Your task to perform on an android device: toggle location history Image 0: 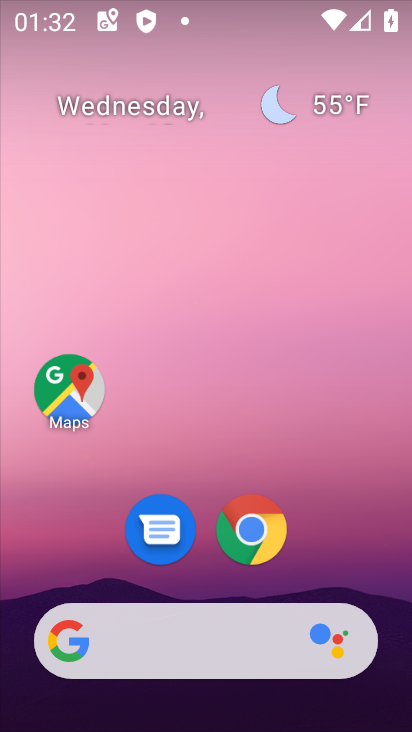
Step 0: drag from (190, 713) to (192, 242)
Your task to perform on an android device: toggle location history Image 1: 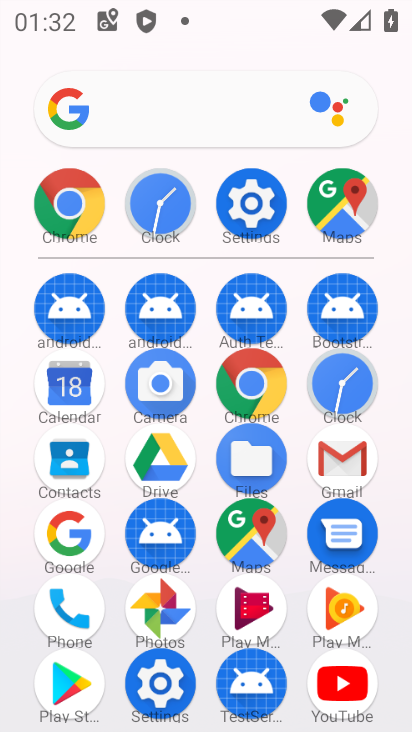
Step 1: click (254, 190)
Your task to perform on an android device: toggle location history Image 2: 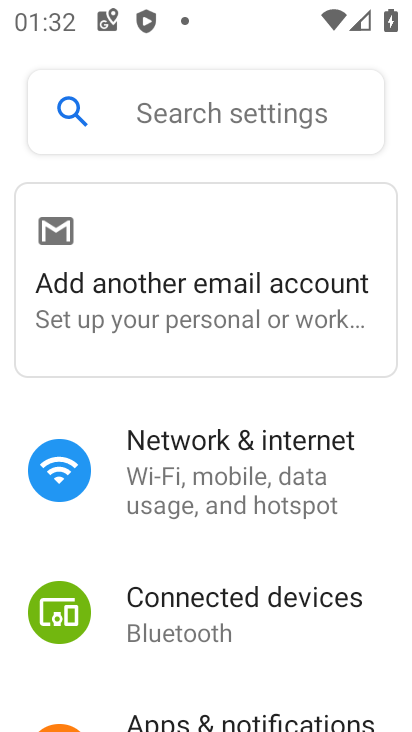
Step 2: drag from (235, 685) to (236, 237)
Your task to perform on an android device: toggle location history Image 3: 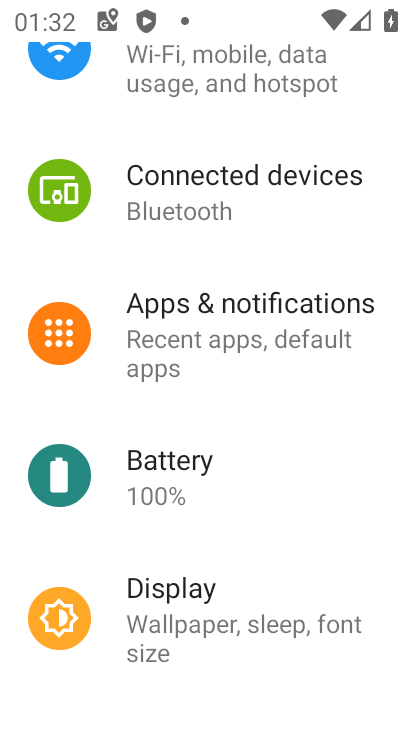
Step 3: drag from (213, 669) to (214, 278)
Your task to perform on an android device: toggle location history Image 4: 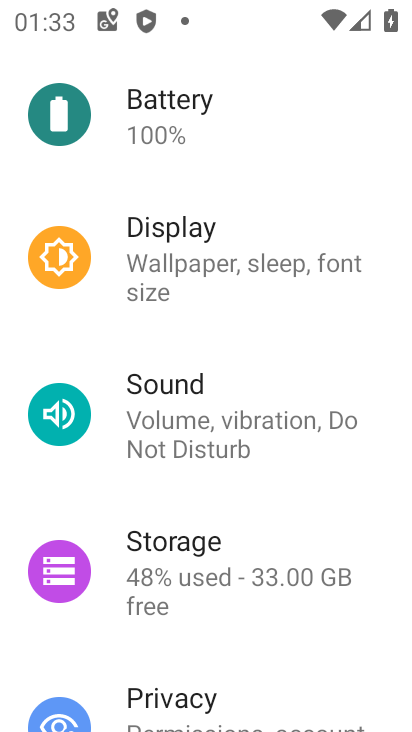
Step 4: drag from (189, 643) to (195, 260)
Your task to perform on an android device: toggle location history Image 5: 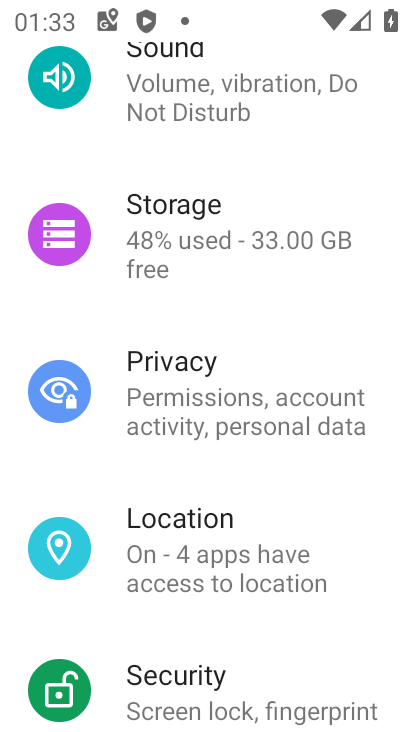
Step 5: click (186, 549)
Your task to perform on an android device: toggle location history Image 6: 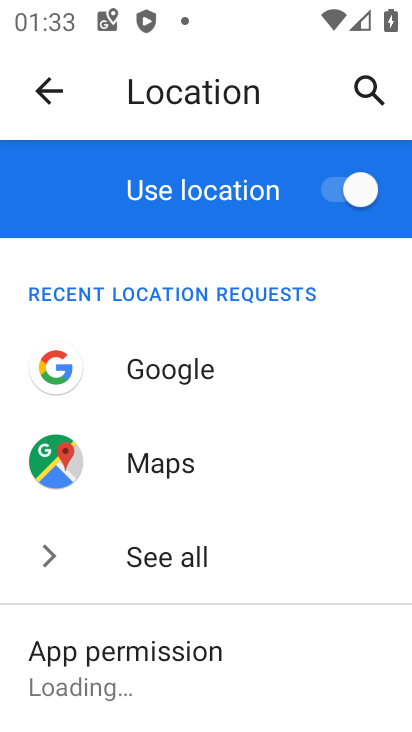
Step 6: drag from (235, 695) to (240, 359)
Your task to perform on an android device: toggle location history Image 7: 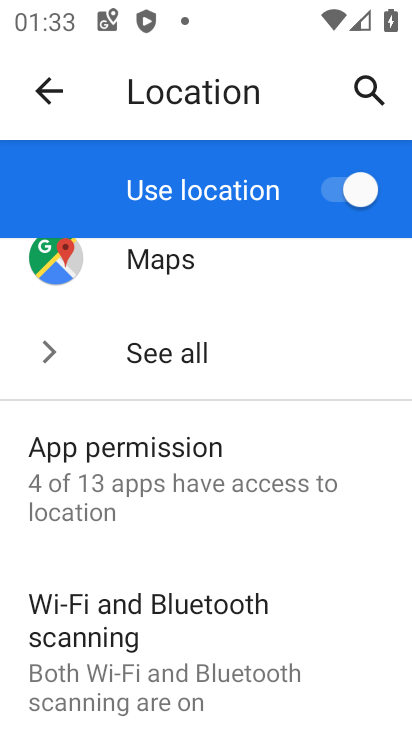
Step 7: drag from (232, 667) to (232, 290)
Your task to perform on an android device: toggle location history Image 8: 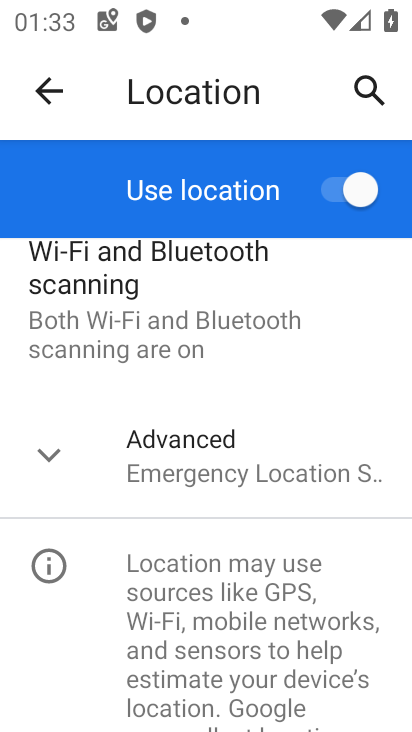
Step 8: click (178, 464)
Your task to perform on an android device: toggle location history Image 9: 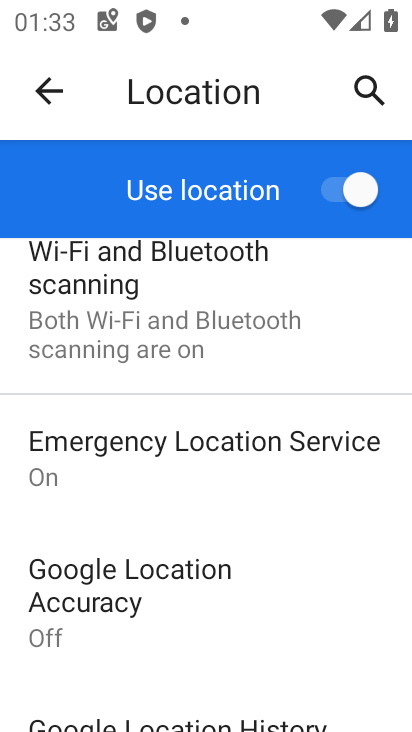
Step 9: drag from (204, 664) to (238, 434)
Your task to perform on an android device: toggle location history Image 10: 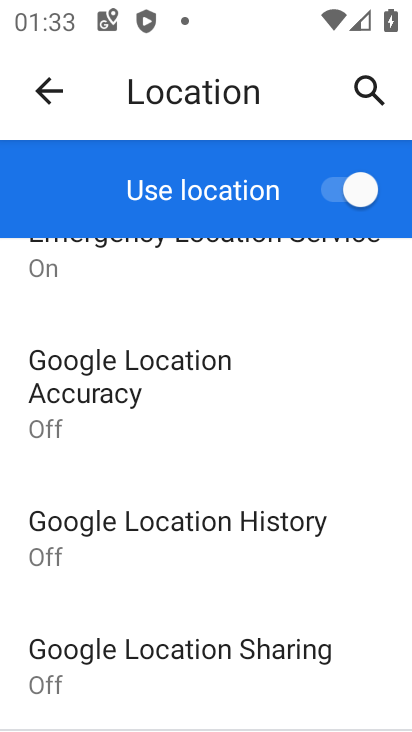
Step 10: click (194, 522)
Your task to perform on an android device: toggle location history Image 11: 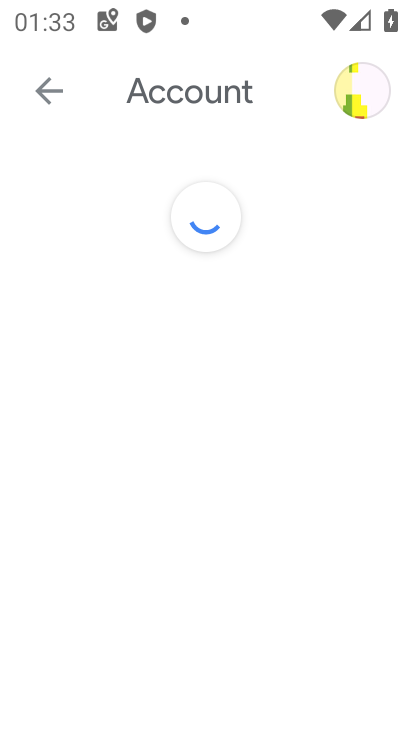
Step 11: drag from (187, 691) to (199, 282)
Your task to perform on an android device: toggle location history Image 12: 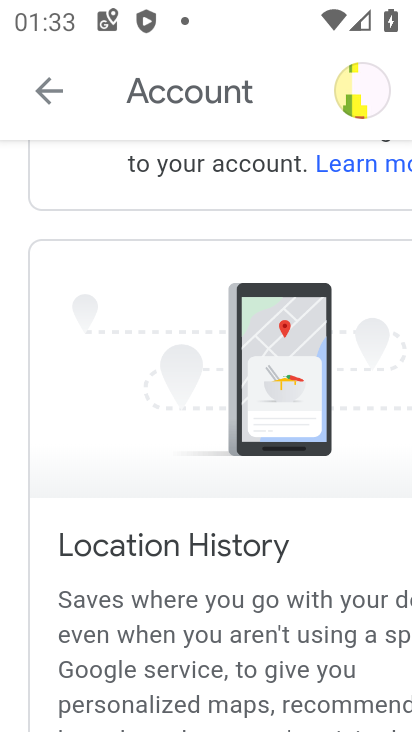
Step 12: drag from (234, 670) to (243, 392)
Your task to perform on an android device: toggle location history Image 13: 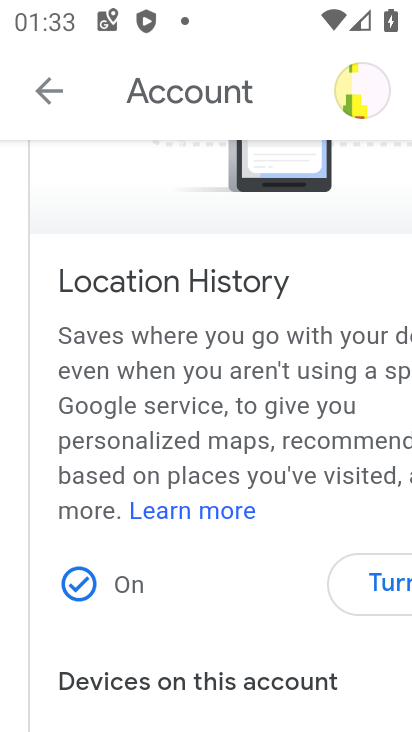
Step 13: click (386, 575)
Your task to perform on an android device: toggle location history Image 14: 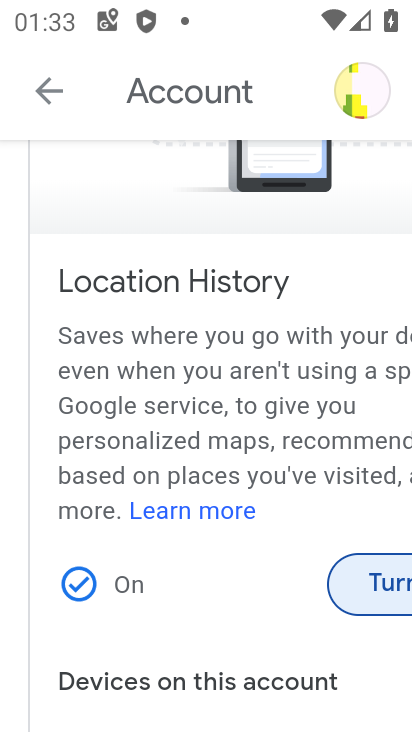
Step 14: click (385, 593)
Your task to perform on an android device: toggle location history Image 15: 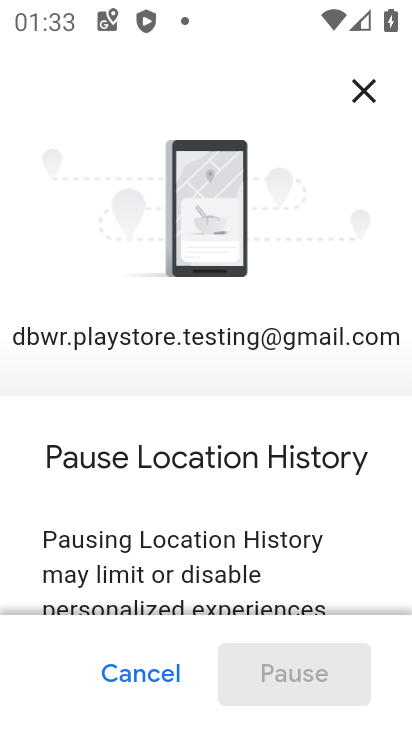
Step 15: drag from (326, 586) to (313, 230)
Your task to perform on an android device: toggle location history Image 16: 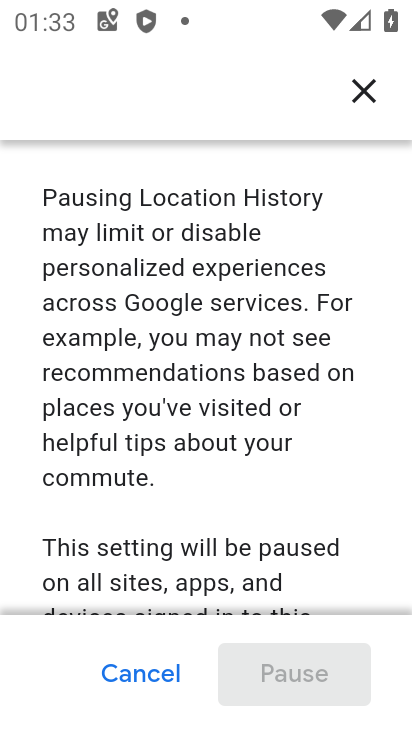
Step 16: drag from (260, 573) to (280, 221)
Your task to perform on an android device: toggle location history Image 17: 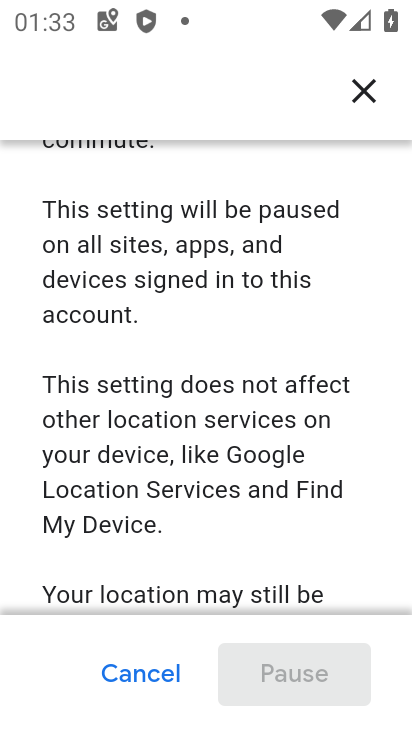
Step 17: drag from (286, 590) to (298, 232)
Your task to perform on an android device: toggle location history Image 18: 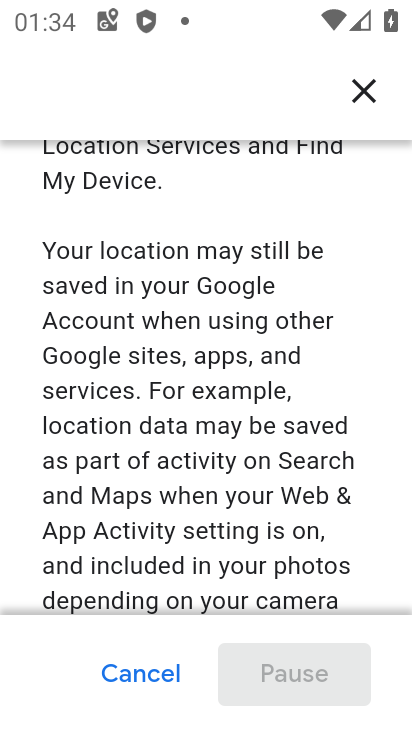
Step 18: drag from (317, 583) to (311, 230)
Your task to perform on an android device: toggle location history Image 19: 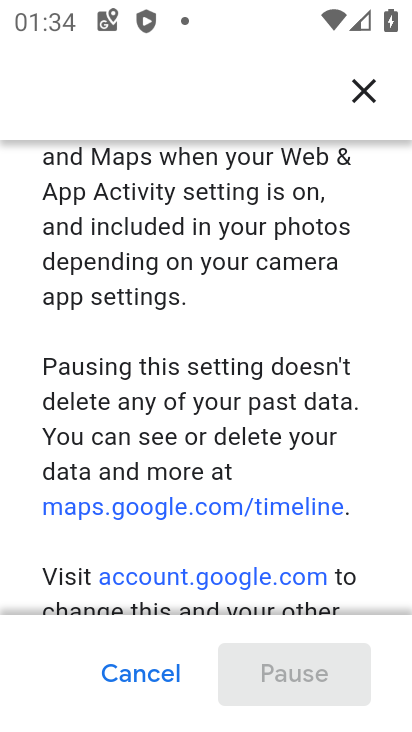
Step 19: drag from (287, 586) to (299, 266)
Your task to perform on an android device: toggle location history Image 20: 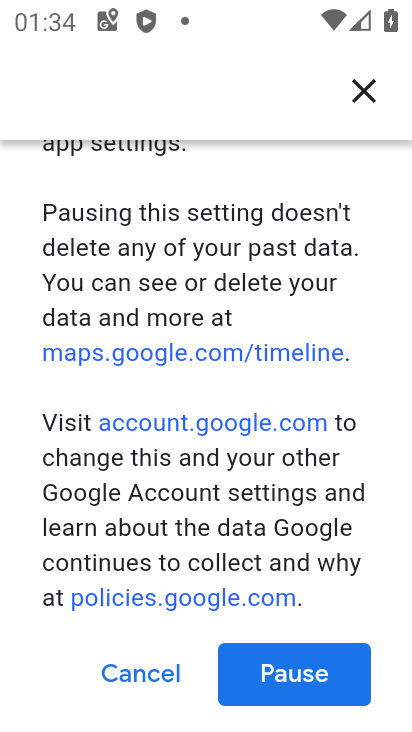
Step 20: click (295, 681)
Your task to perform on an android device: toggle location history Image 21: 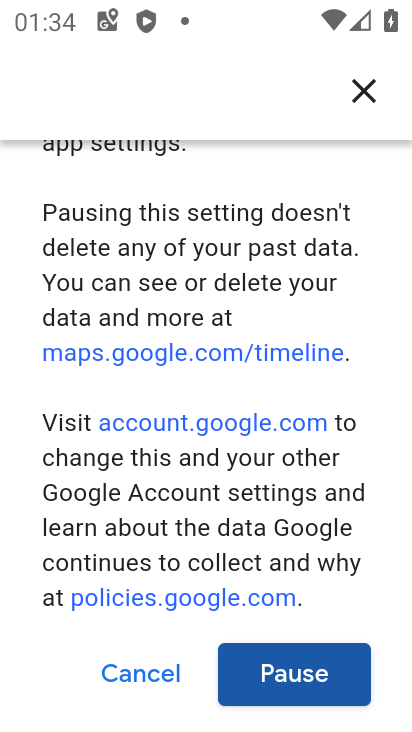
Step 21: click (292, 673)
Your task to perform on an android device: toggle location history Image 22: 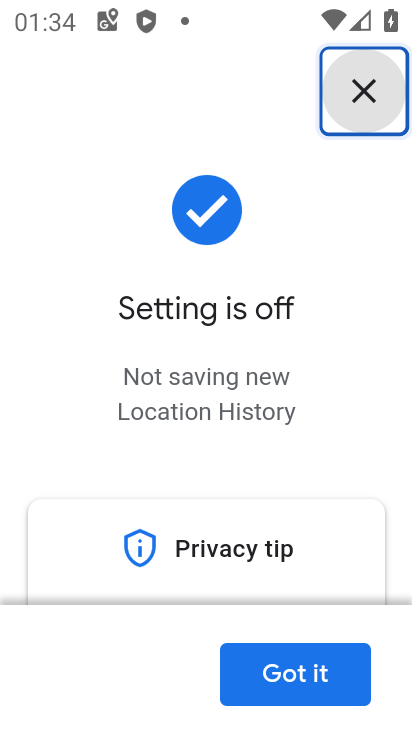
Step 22: click (300, 664)
Your task to perform on an android device: toggle location history Image 23: 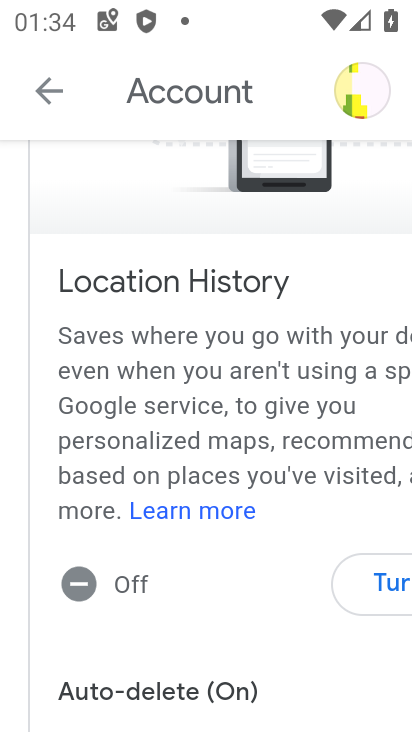
Step 23: task complete